Your task to perform on an android device: Open CNN.com Image 0: 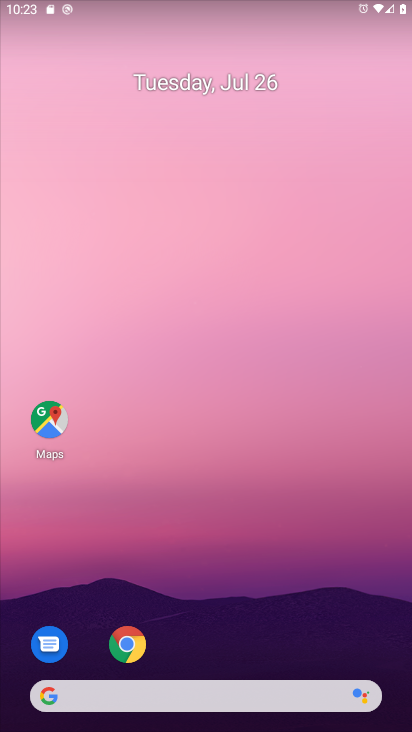
Step 0: click (142, 652)
Your task to perform on an android device: Open CNN.com Image 1: 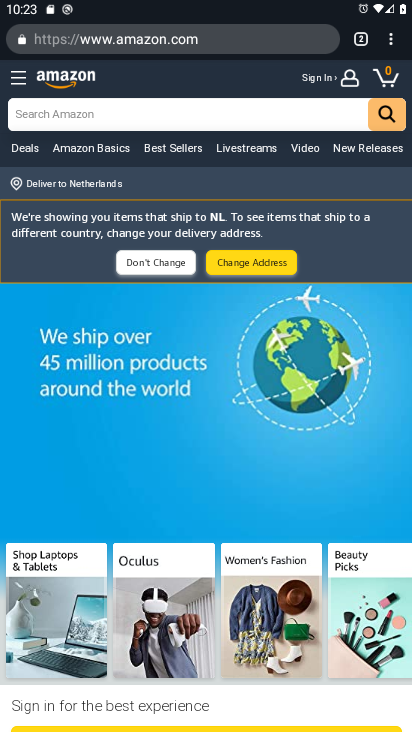
Step 1: click (147, 34)
Your task to perform on an android device: Open CNN.com Image 2: 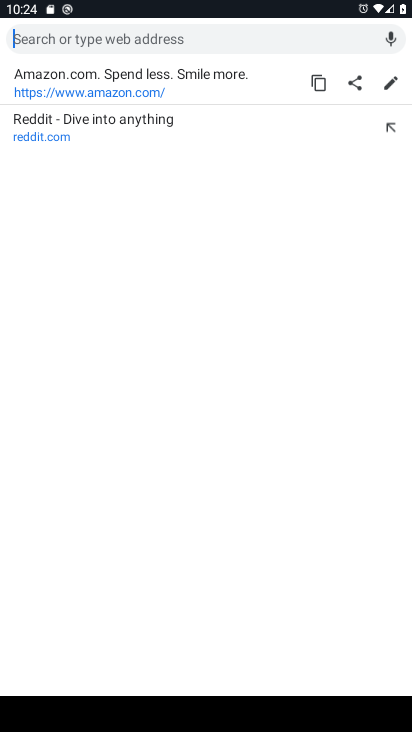
Step 2: type "CNN.com"
Your task to perform on an android device: Open CNN.com Image 3: 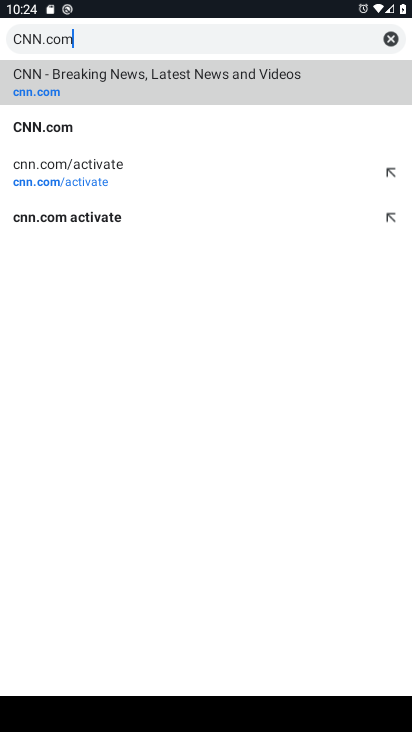
Step 3: click (216, 87)
Your task to perform on an android device: Open CNN.com Image 4: 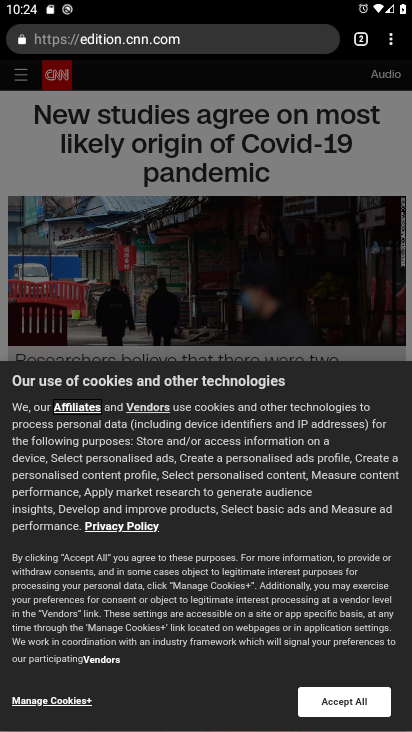
Step 4: task complete